Your task to perform on an android device: What's the weather going to be tomorrow? Image 0: 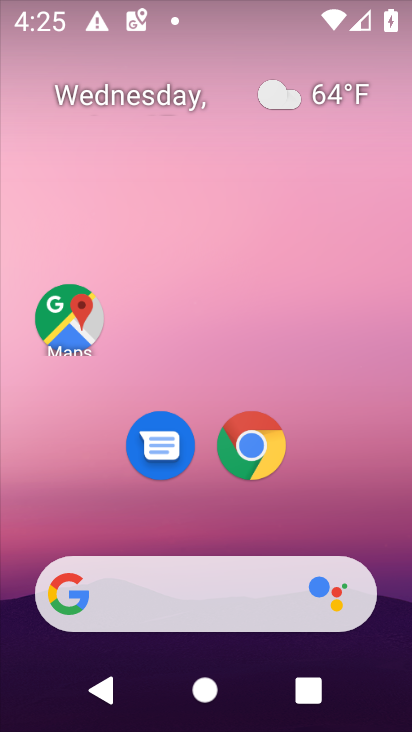
Step 0: click (354, 82)
Your task to perform on an android device: What's the weather going to be tomorrow? Image 1: 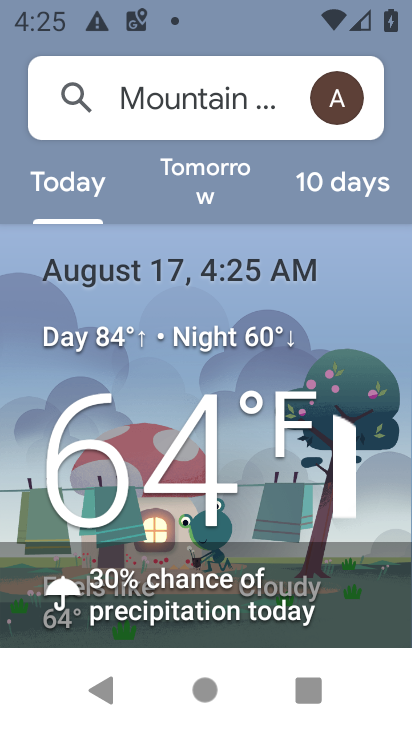
Step 1: click (199, 203)
Your task to perform on an android device: What's the weather going to be tomorrow? Image 2: 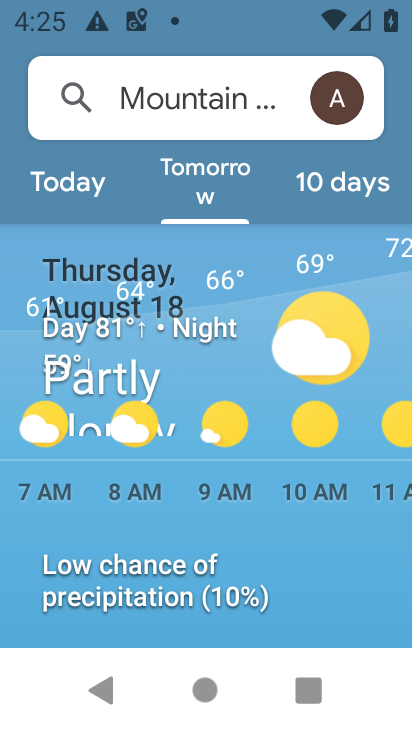
Step 2: task complete